Your task to perform on an android device: change notification settings in the gmail app Image 0: 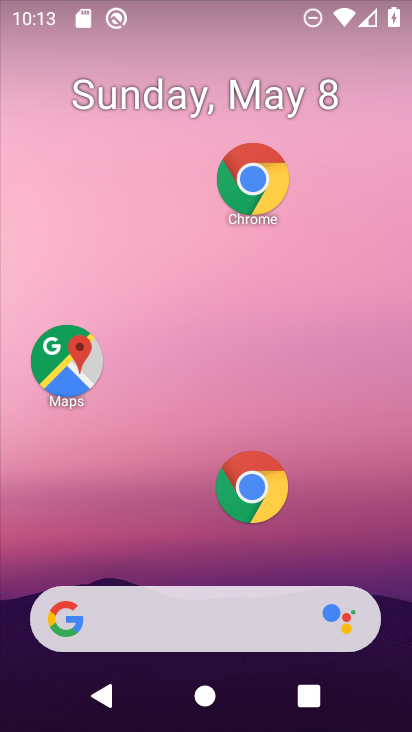
Step 0: drag from (130, 506) to (138, 66)
Your task to perform on an android device: change notification settings in the gmail app Image 1: 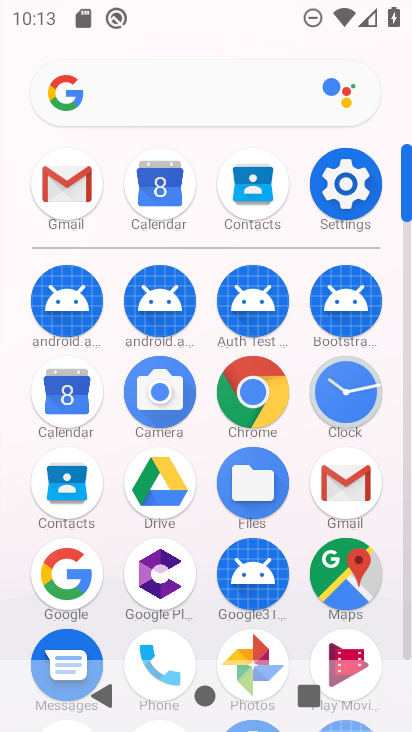
Step 1: click (58, 179)
Your task to perform on an android device: change notification settings in the gmail app Image 2: 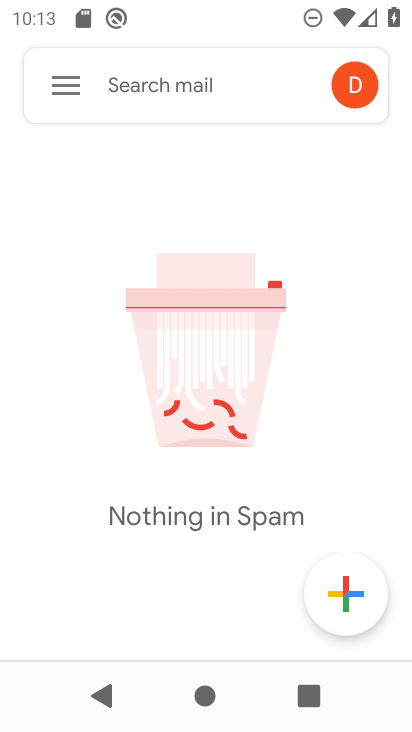
Step 2: click (71, 89)
Your task to perform on an android device: change notification settings in the gmail app Image 3: 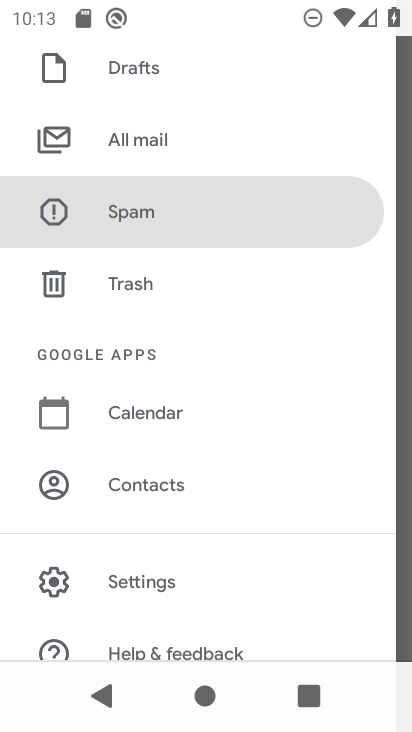
Step 3: click (159, 588)
Your task to perform on an android device: change notification settings in the gmail app Image 4: 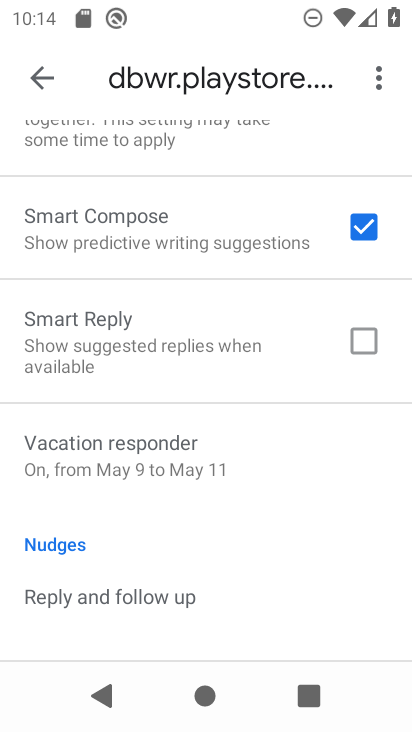
Step 4: drag from (195, 204) to (251, 623)
Your task to perform on an android device: change notification settings in the gmail app Image 5: 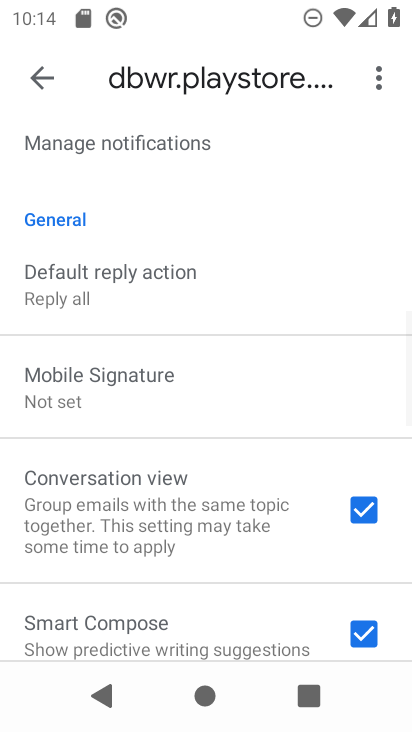
Step 5: drag from (243, 158) to (281, 638)
Your task to perform on an android device: change notification settings in the gmail app Image 6: 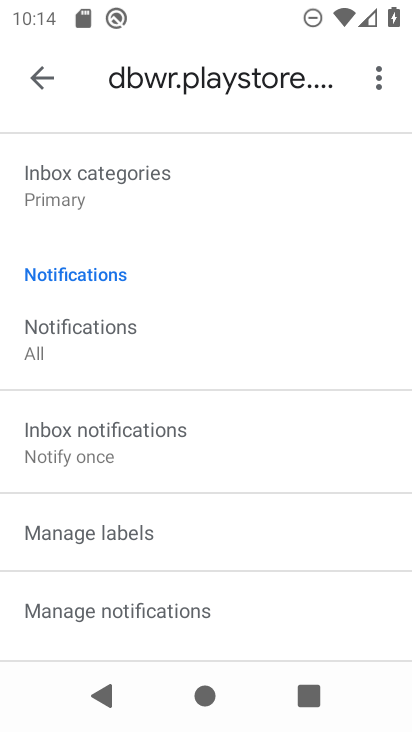
Step 6: click (222, 602)
Your task to perform on an android device: change notification settings in the gmail app Image 7: 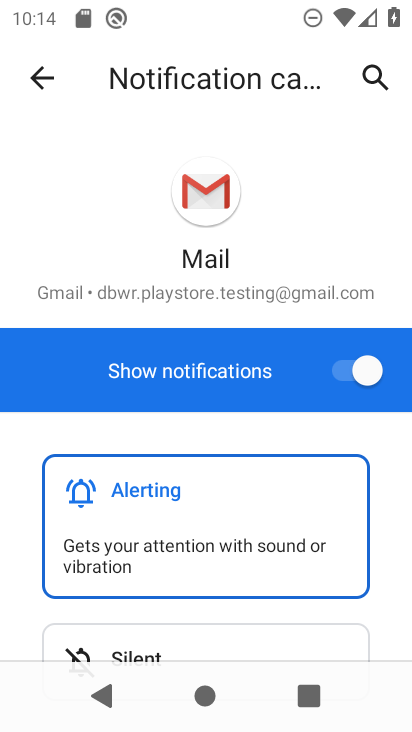
Step 7: click (343, 368)
Your task to perform on an android device: change notification settings in the gmail app Image 8: 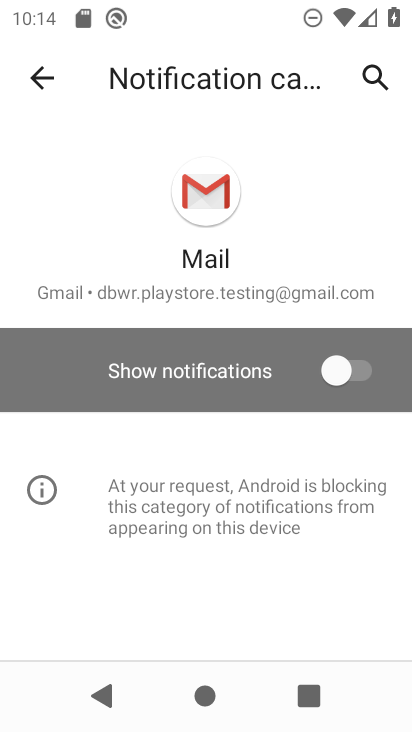
Step 8: task complete